Your task to perform on an android device: Open CNN.com Image 0: 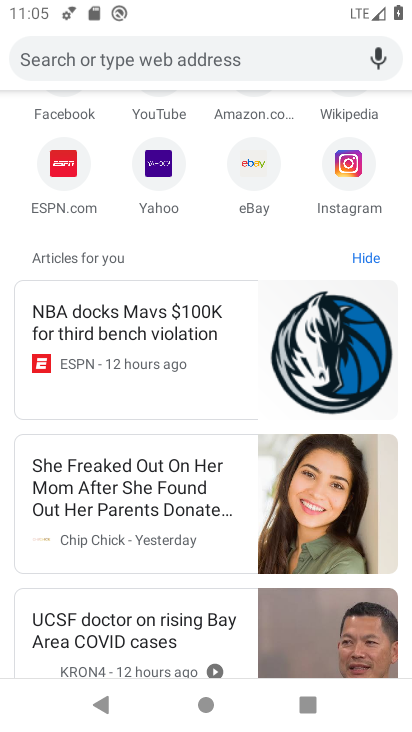
Step 0: drag from (145, 220) to (186, 601)
Your task to perform on an android device: Open CNN.com Image 1: 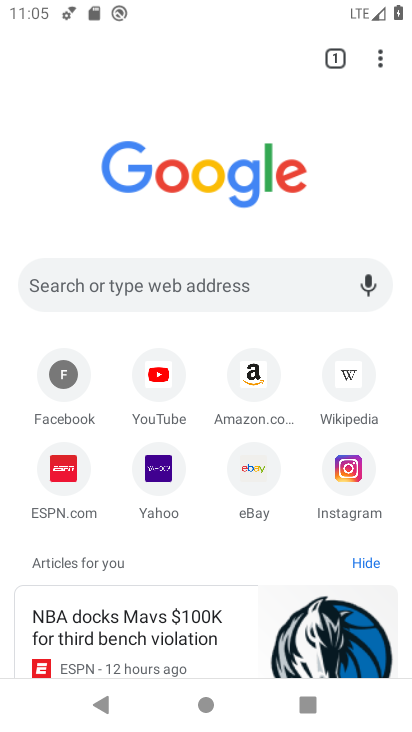
Step 1: click (240, 296)
Your task to perform on an android device: Open CNN.com Image 2: 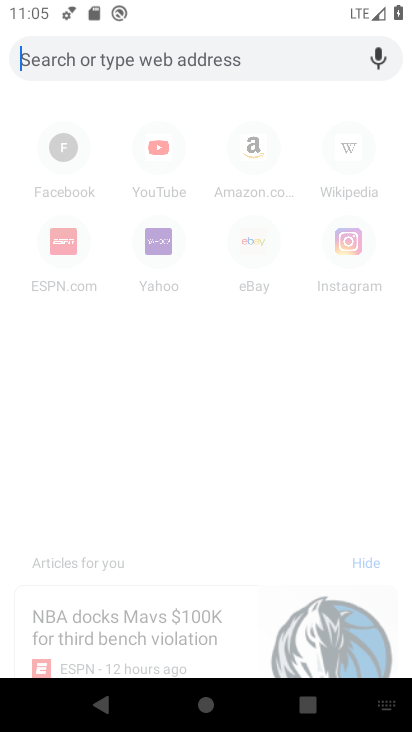
Step 2: type "cnn.com"
Your task to perform on an android device: Open CNN.com Image 3: 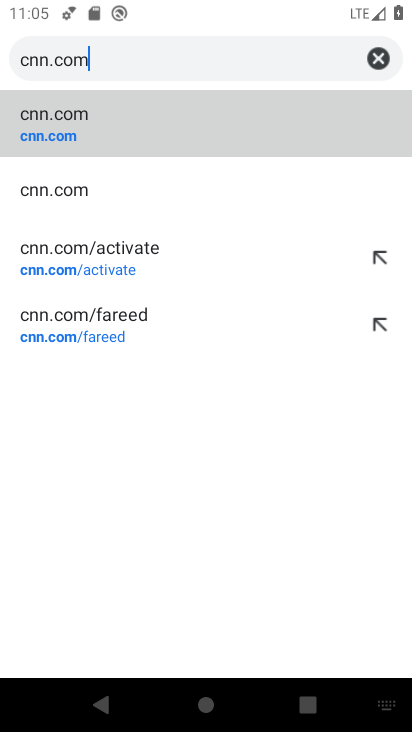
Step 3: click (161, 117)
Your task to perform on an android device: Open CNN.com Image 4: 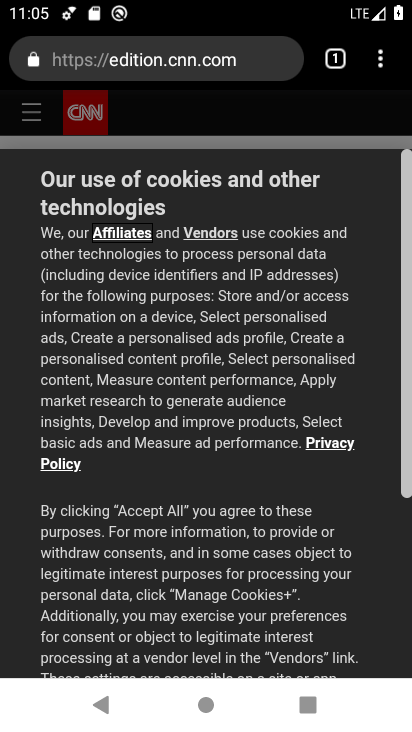
Step 4: task complete